Your task to perform on an android device: What's the weather today? Image 0: 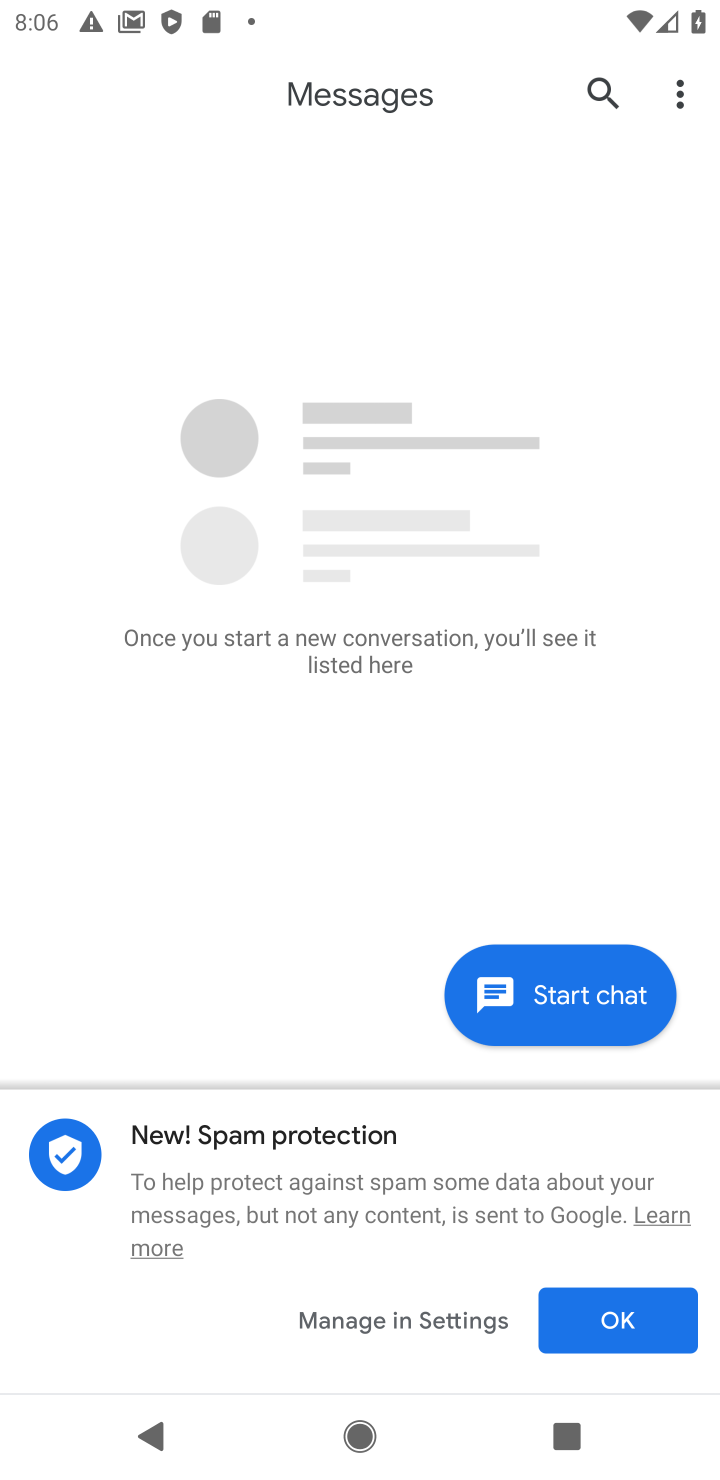
Step 0: press back button
Your task to perform on an android device: What's the weather today? Image 1: 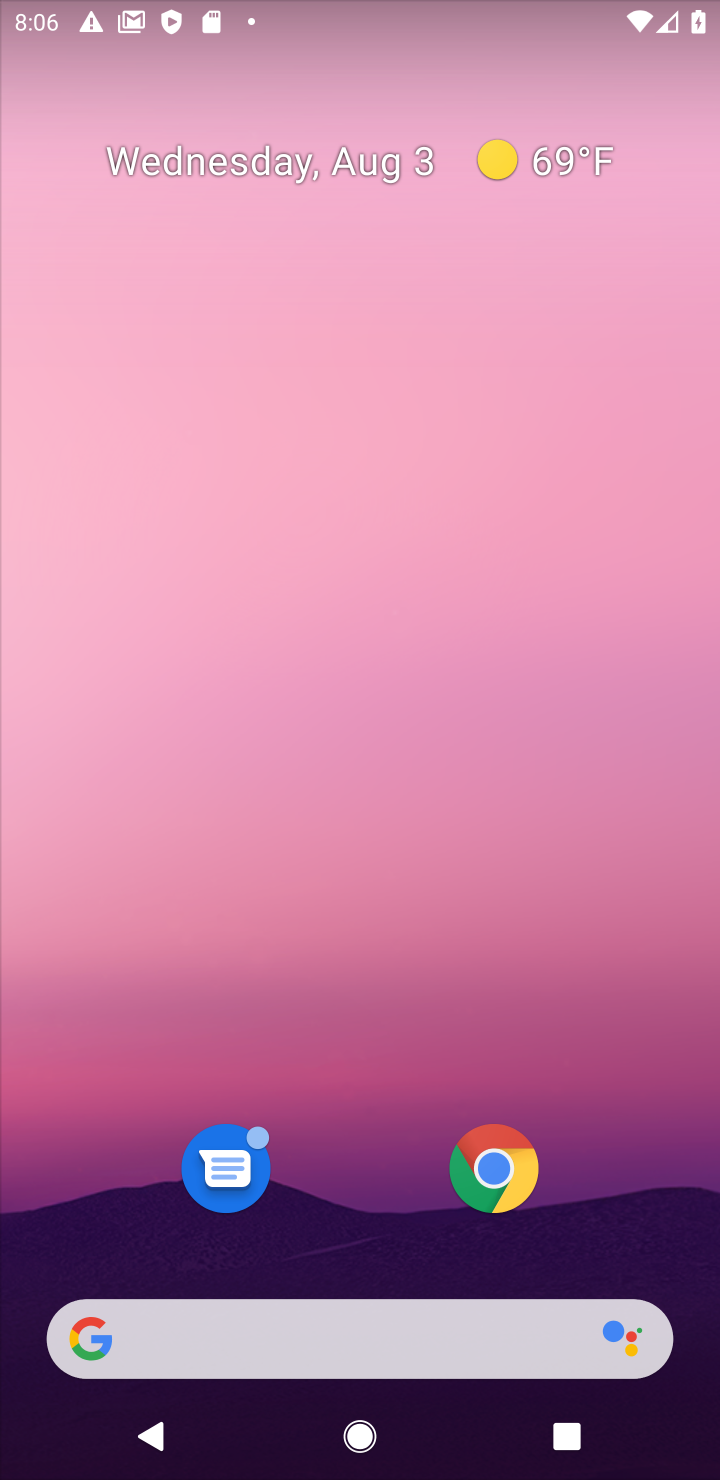
Step 1: drag from (460, 1277) to (599, 61)
Your task to perform on an android device: What's the weather today? Image 2: 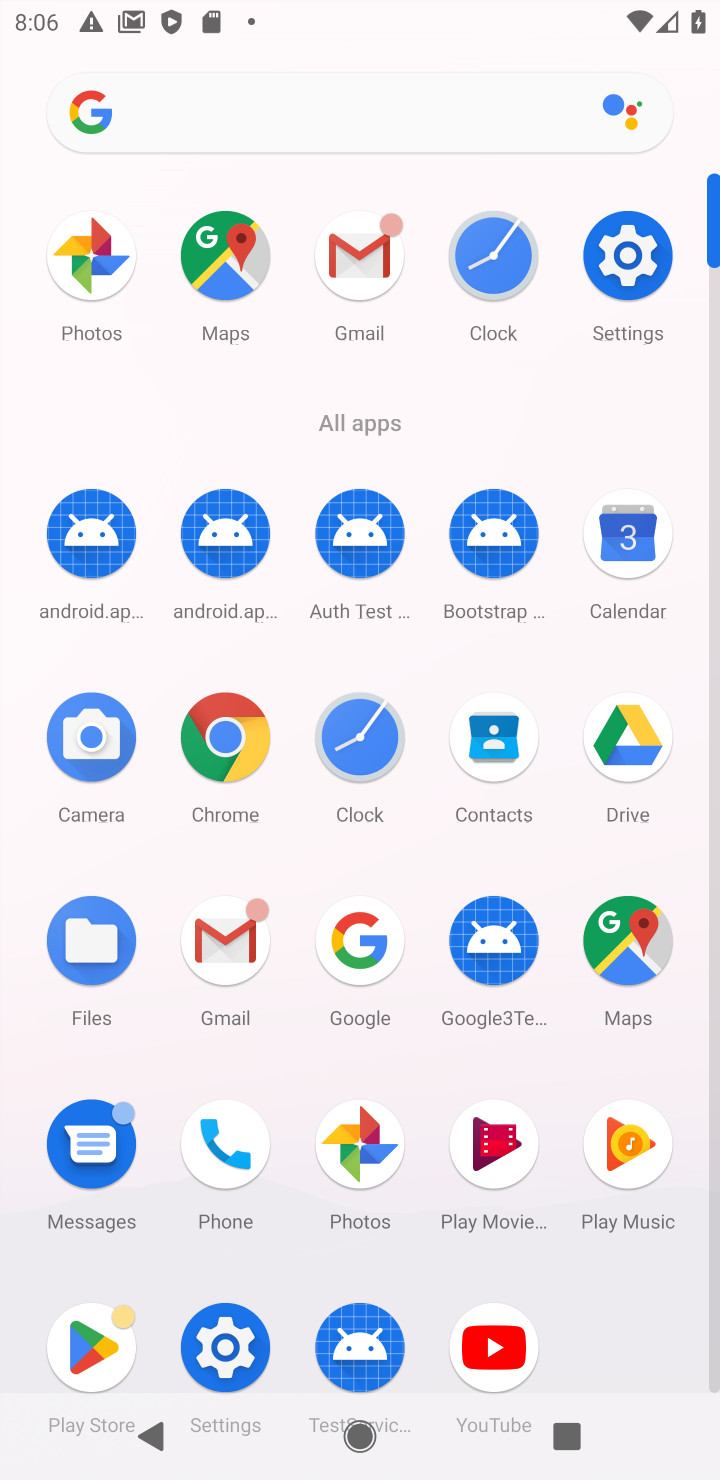
Step 2: click (383, 946)
Your task to perform on an android device: What's the weather today? Image 3: 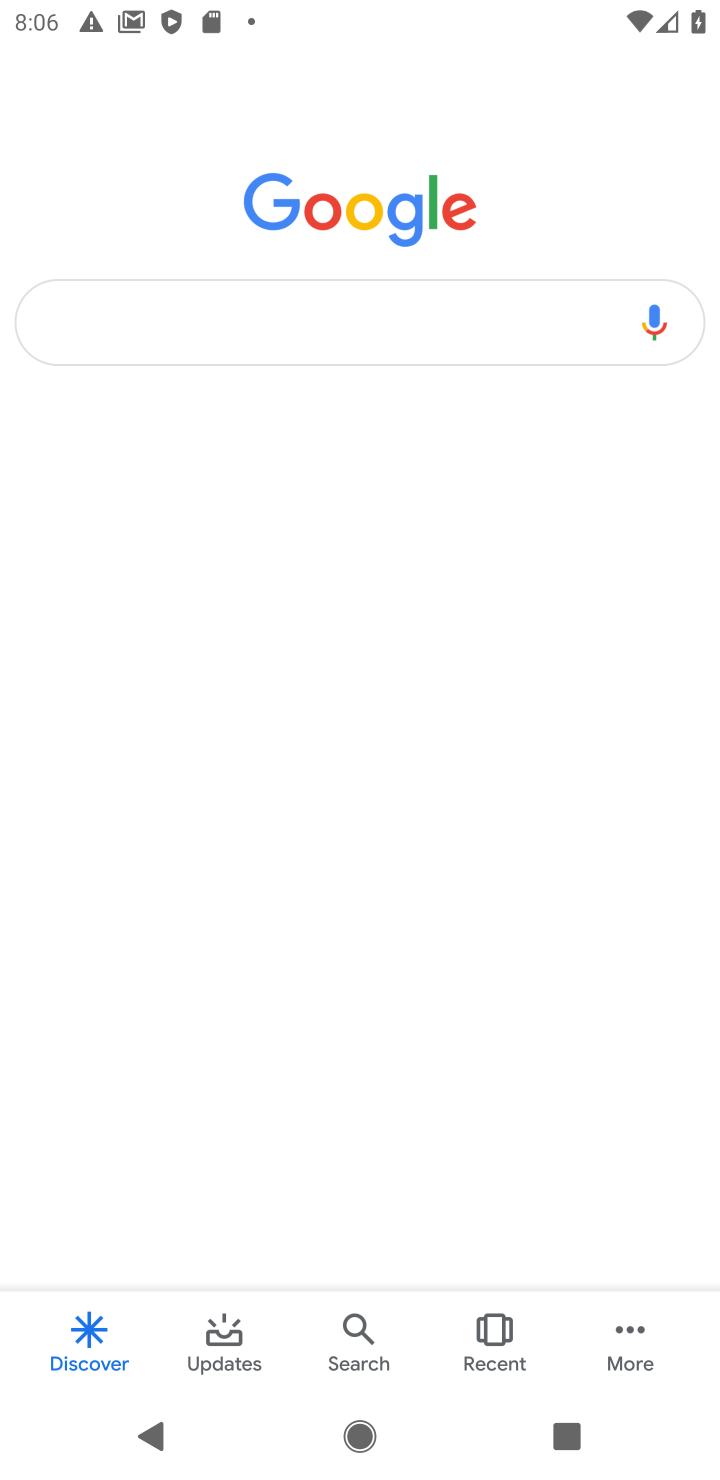
Step 3: click (200, 343)
Your task to perform on an android device: What's the weather today? Image 4: 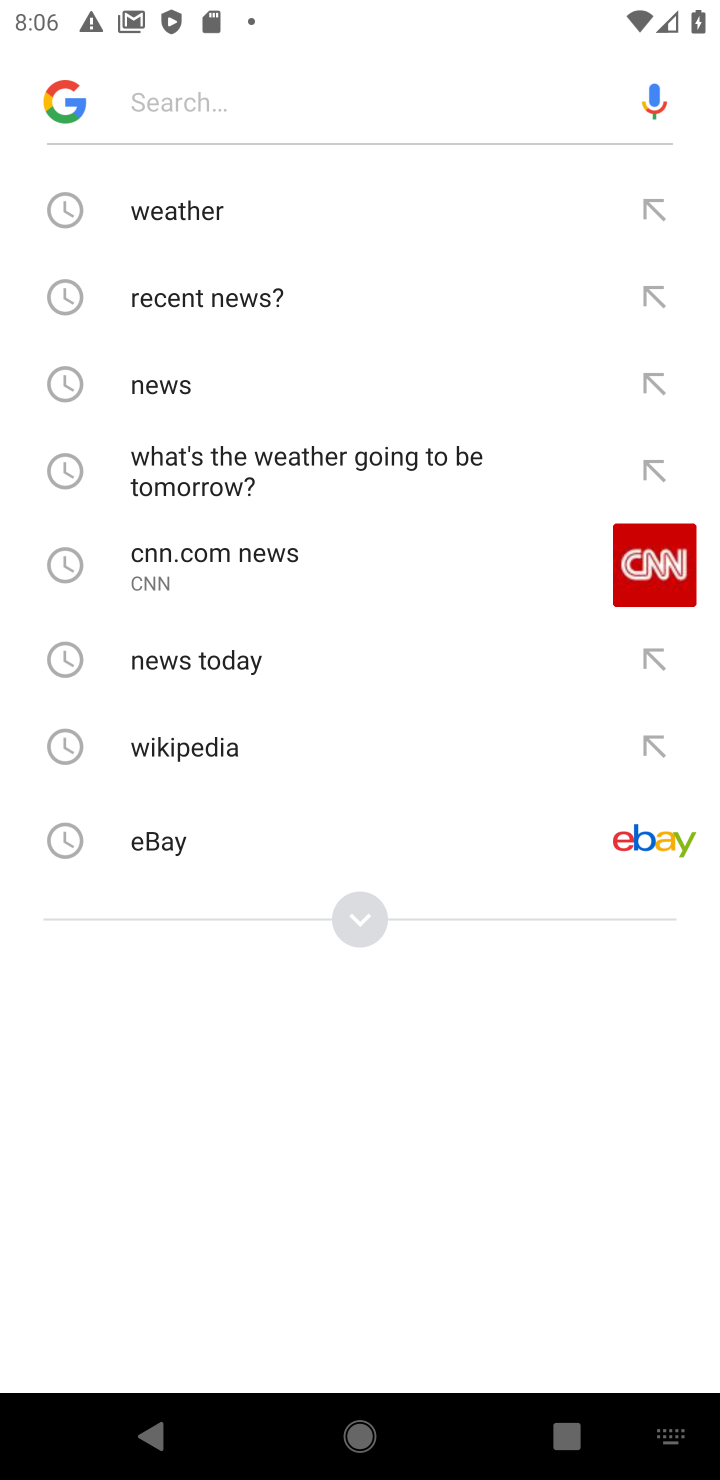
Step 4: type "weather"
Your task to perform on an android device: What's the weather today? Image 5: 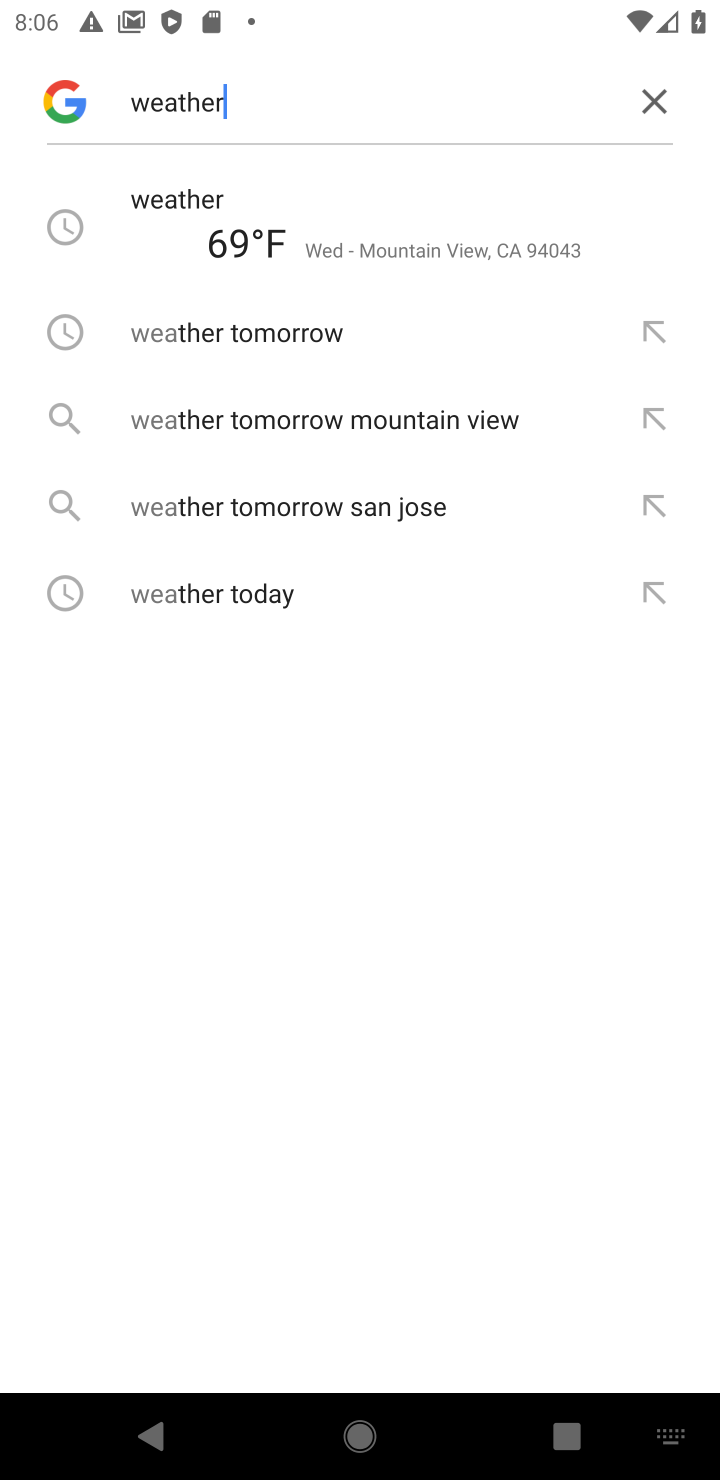
Step 5: type ""
Your task to perform on an android device: What's the weather today? Image 6: 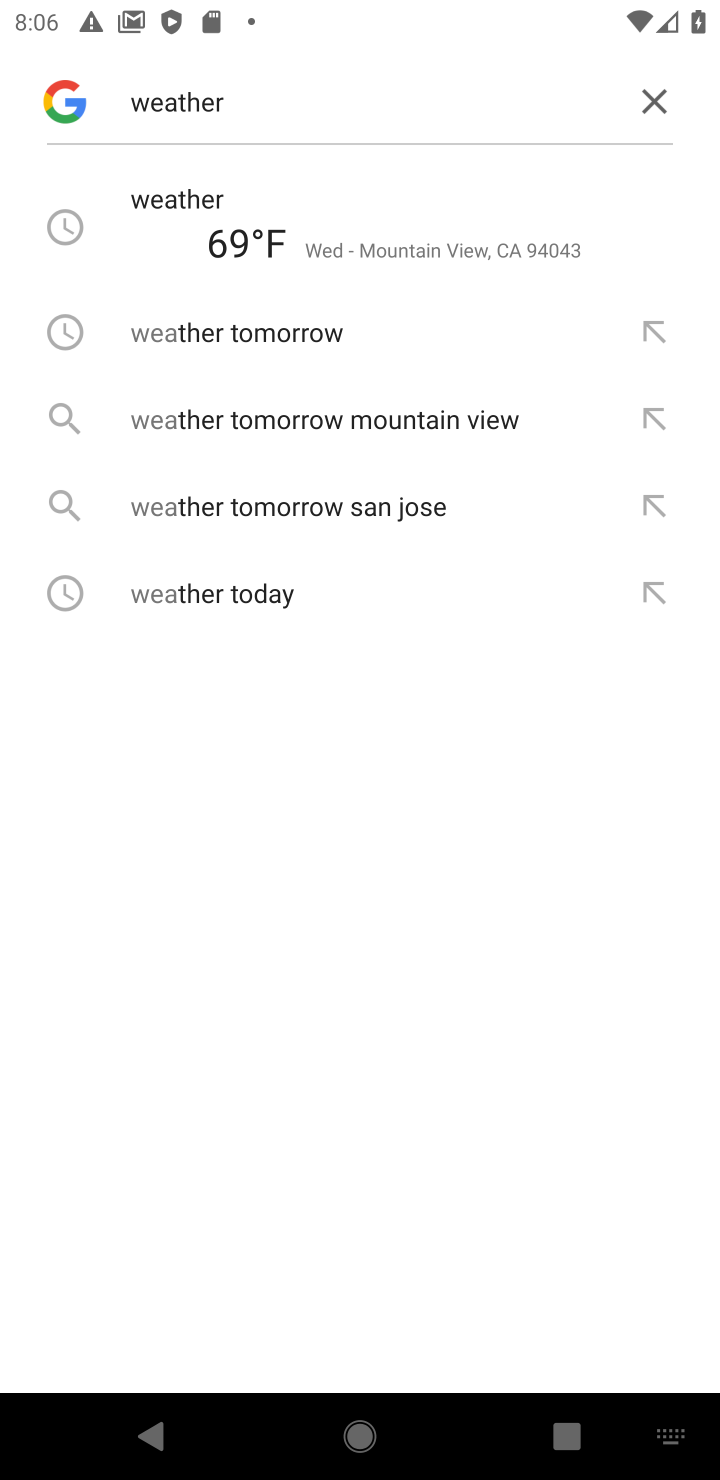
Step 6: click (182, 210)
Your task to perform on an android device: What's the weather today? Image 7: 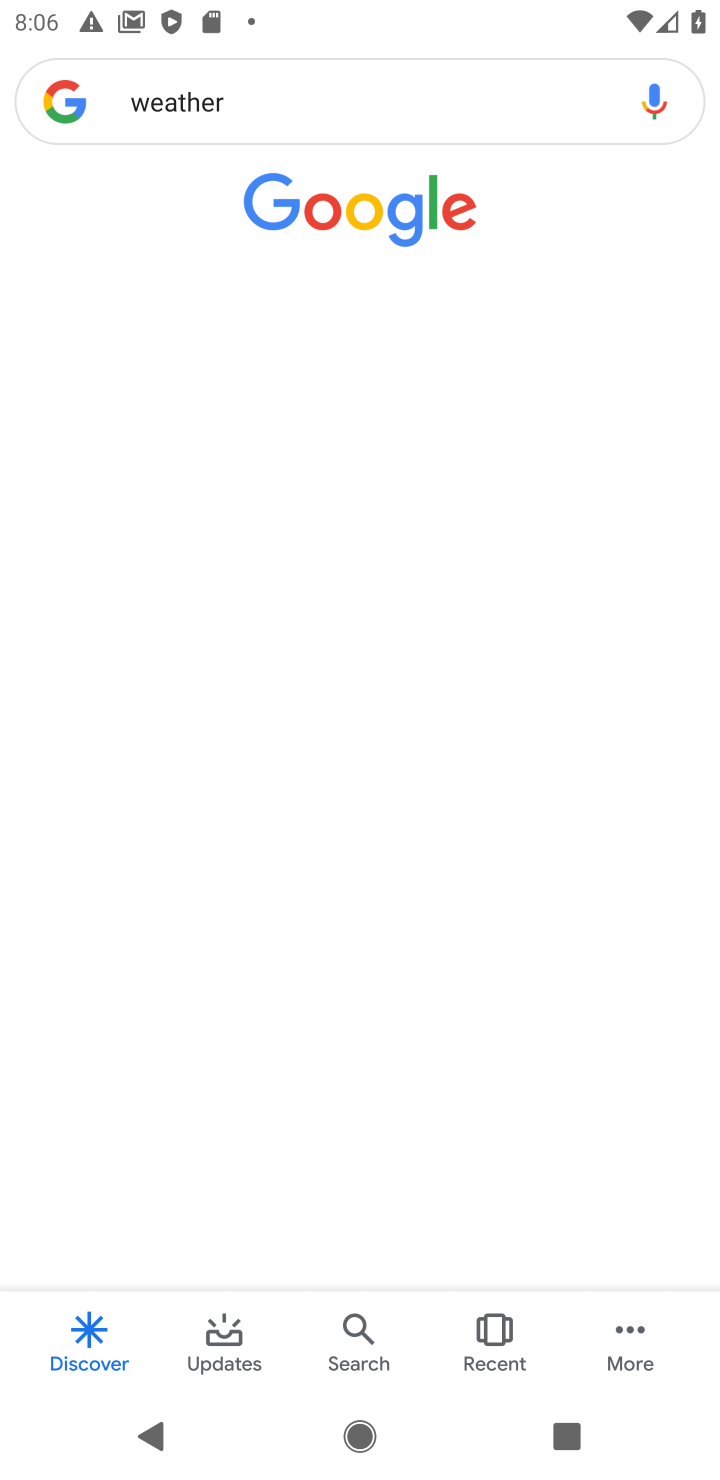
Step 7: click (177, 206)
Your task to perform on an android device: What's the weather today? Image 8: 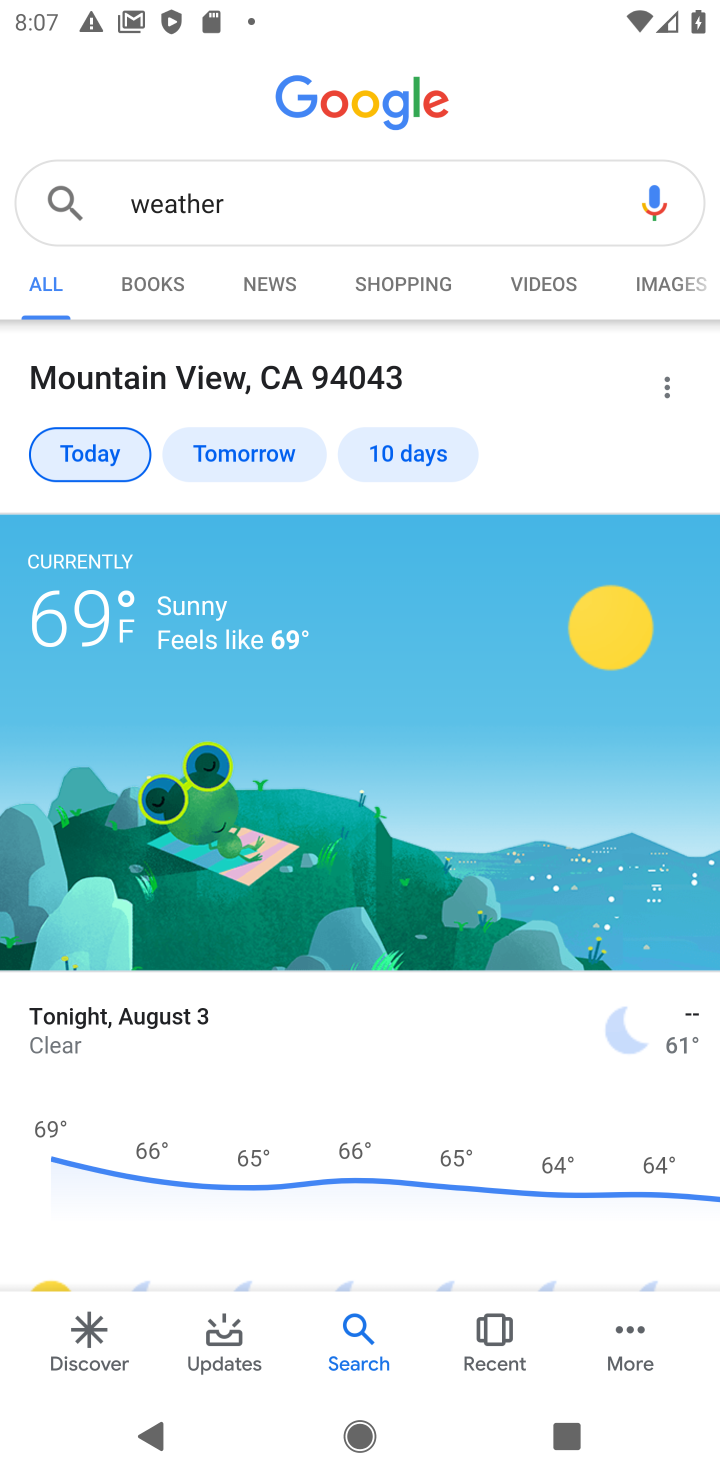
Step 8: task complete